Your task to perform on an android device: Open eBay Image 0: 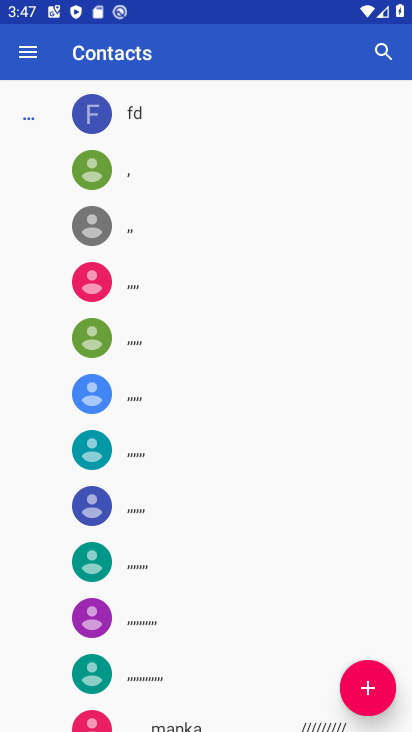
Step 0: press home button
Your task to perform on an android device: Open eBay Image 1: 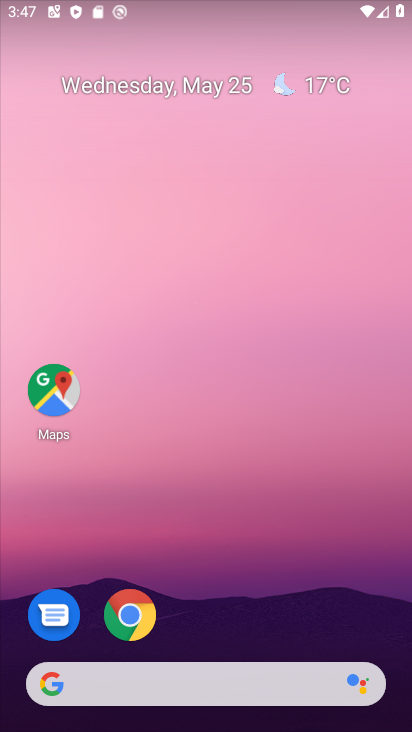
Step 1: click (129, 610)
Your task to perform on an android device: Open eBay Image 2: 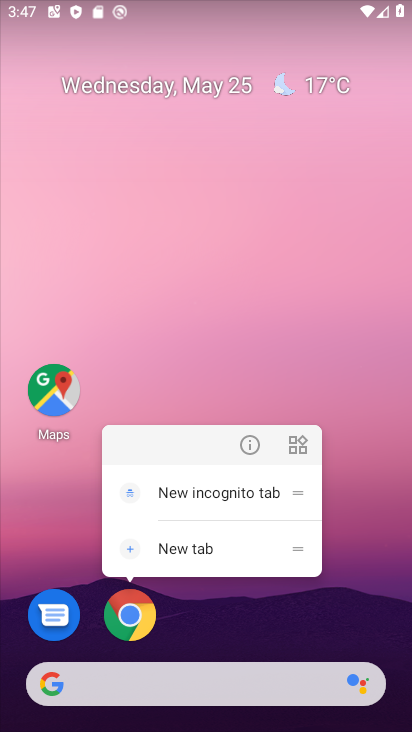
Step 2: click (138, 630)
Your task to perform on an android device: Open eBay Image 3: 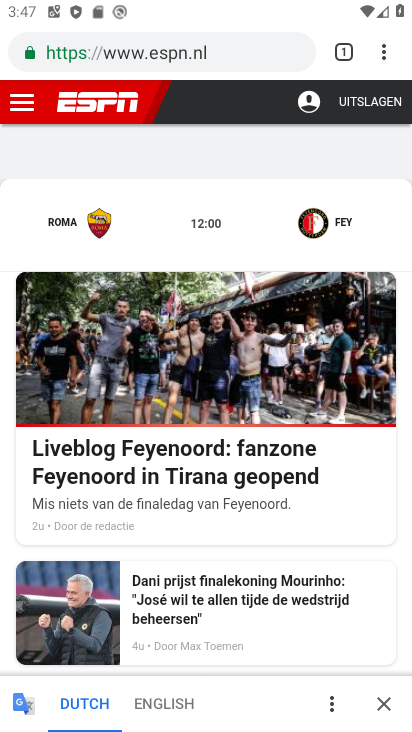
Step 3: click (230, 48)
Your task to perform on an android device: Open eBay Image 4: 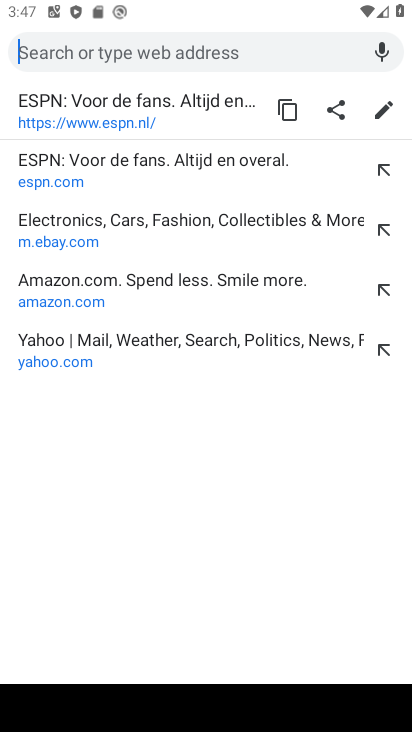
Step 4: click (120, 228)
Your task to perform on an android device: Open eBay Image 5: 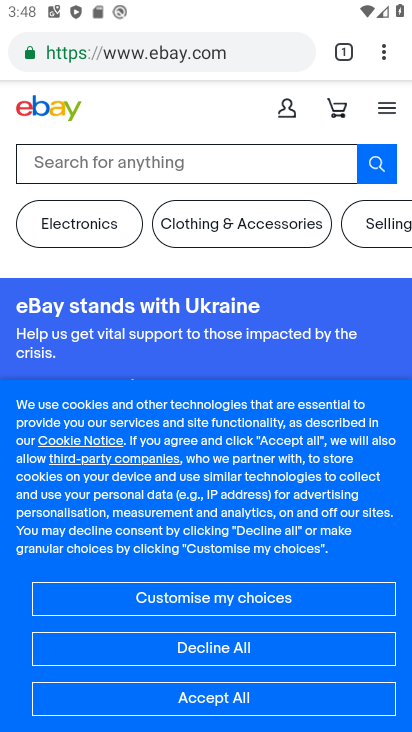
Step 5: task complete